Your task to perform on an android device: check google app version Image 0: 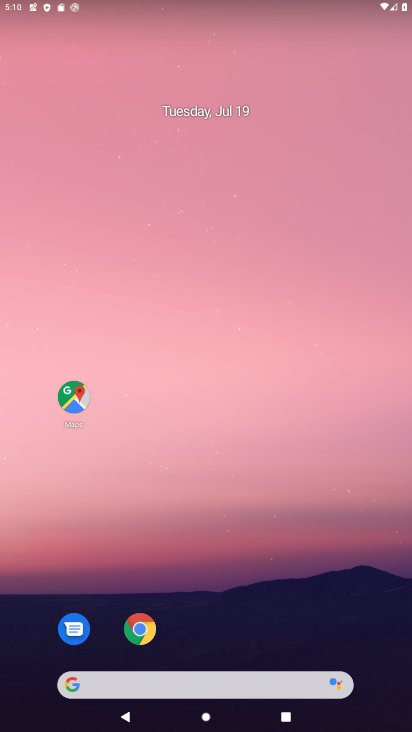
Step 0: press home button
Your task to perform on an android device: check google app version Image 1: 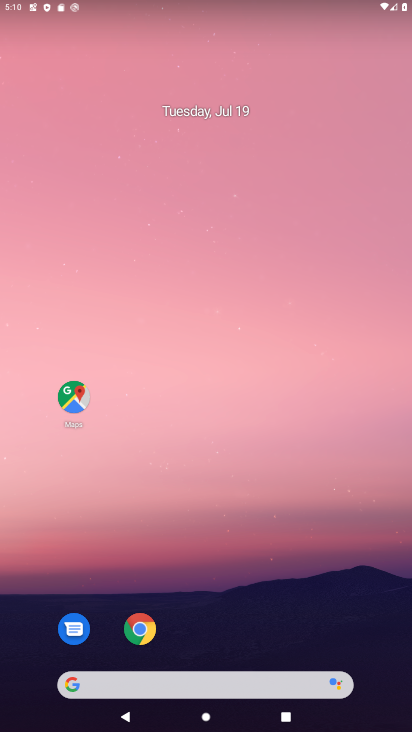
Step 1: click (67, 691)
Your task to perform on an android device: check google app version Image 2: 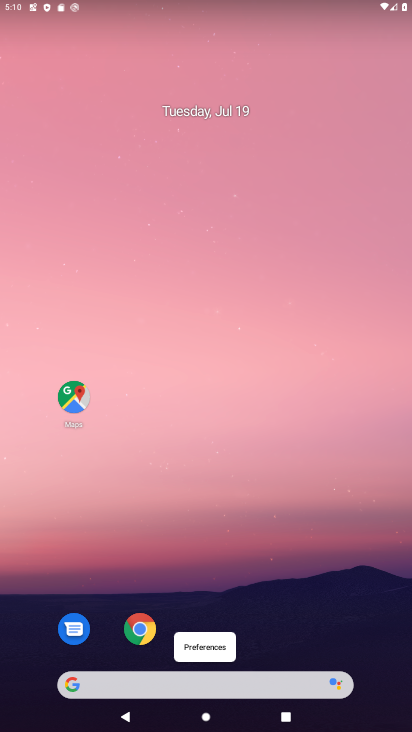
Step 2: drag from (323, 634) to (219, 155)
Your task to perform on an android device: check google app version Image 3: 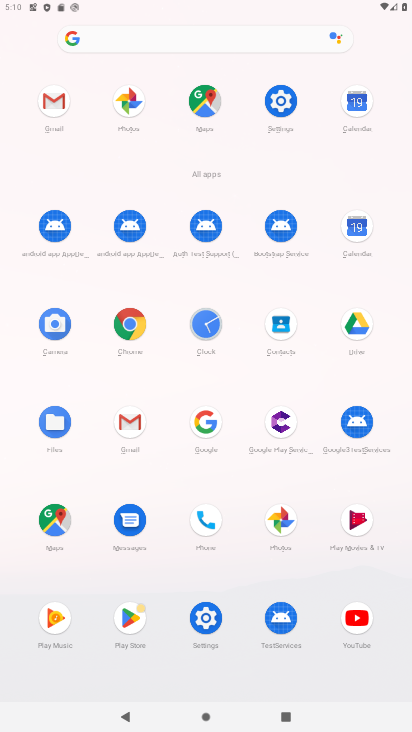
Step 3: click (210, 415)
Your task to perform on an android device: check google app version Image 4: 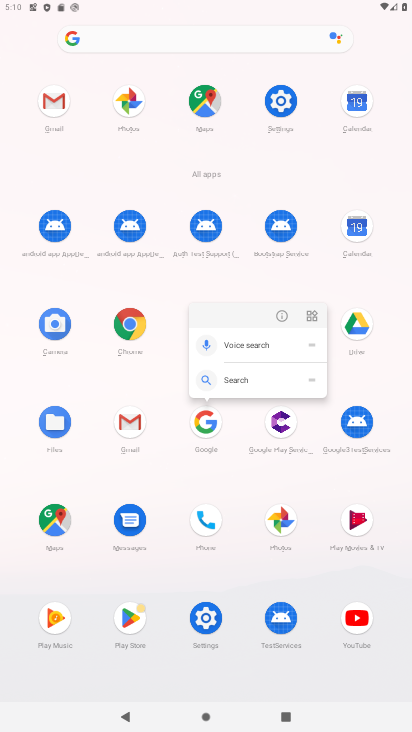
Step 4: click (281, 312)
Your task to perform on an android device: check google app version Image 5: 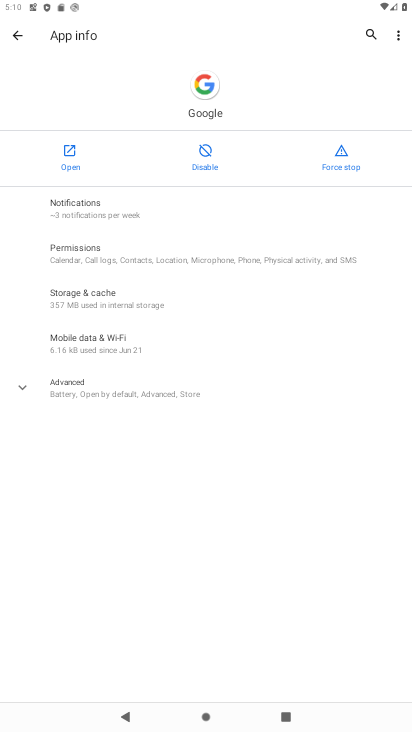
Step 5: click (60, 386)
Your task to perform on an android device: check google app version Image 6: 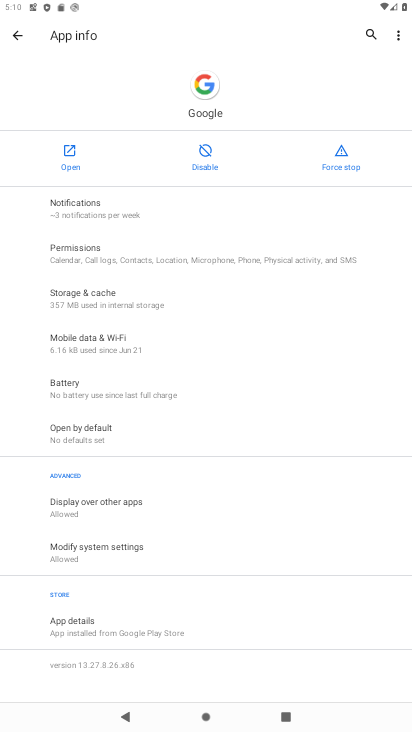
Step 6: task complete